Your task to perform on an android device: turn off improve location accuracy Image 0: 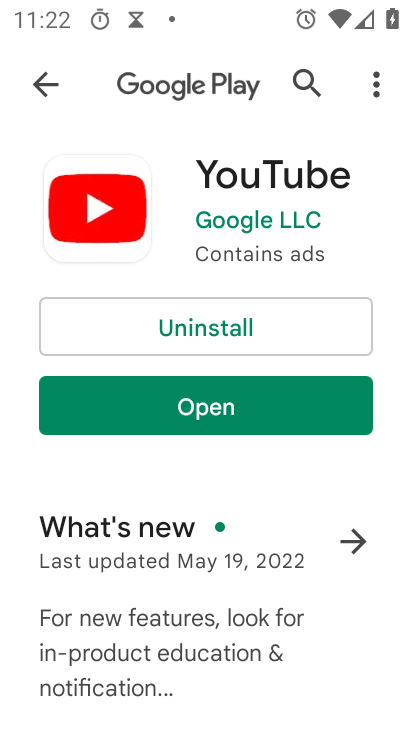
Step 0: press home button
Your task to perform on an android device: turn off improve location accuracy Image 1: 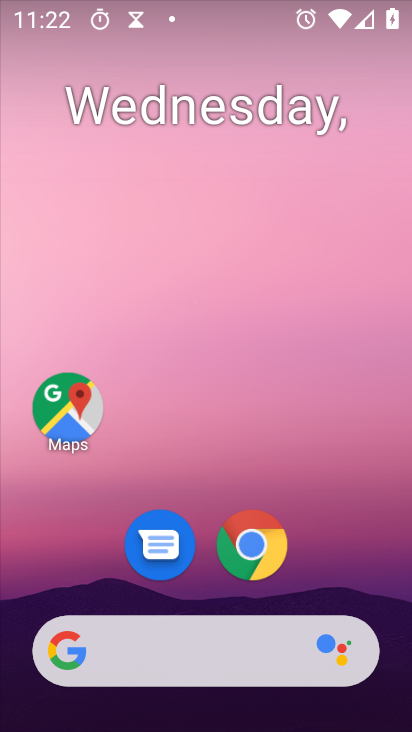
Step 1: drag from (189, 647) to (247, 178)
Your task to perform on an android device: turn off improve location accuracy Image 2: 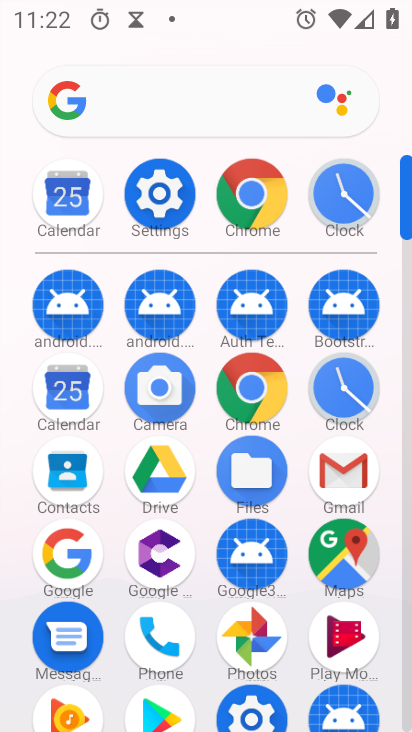
Step 2: click (157, 201)
Your task to perform on an android device: turn off improve location accuracy Image 3: 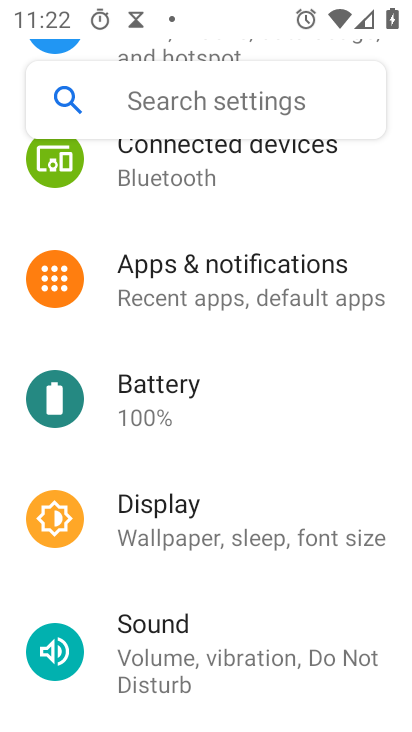
Step 3: drag from (267, 582) to (325, 155)
Your task to perform on an android device: turn off improve location accuracy Image 4: 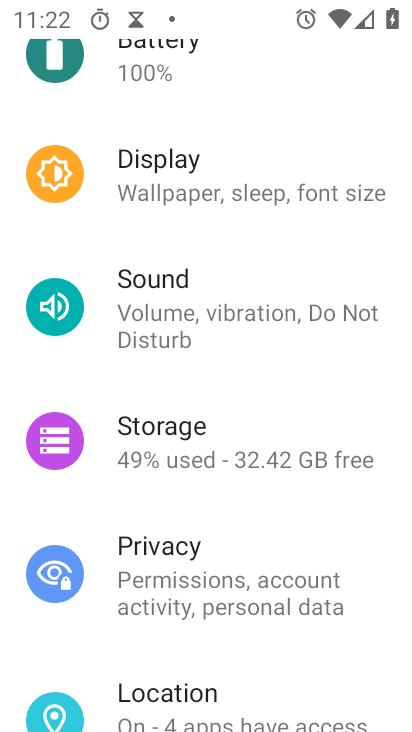
Step 4: drag from (214, 649) to (272, 253)
Your task to perform on an android device: turn off improve location accuracy Image 5: 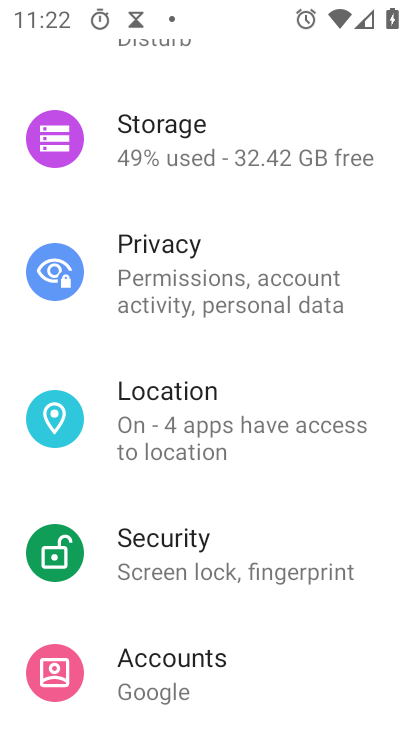
Step 5: click (191, 409)
Your task to perform on an android device: turn off improve location accuracy Image 6: 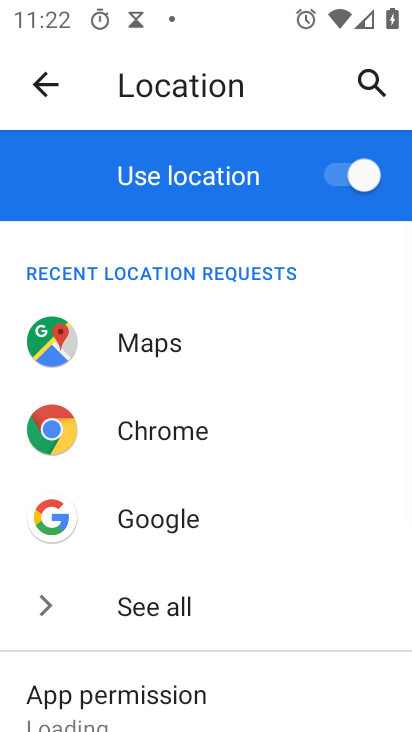
Step 6: drag from (231, 614) to (270, 23)
Your task to perform on an android device: turn off improve location accuracy Image 7: 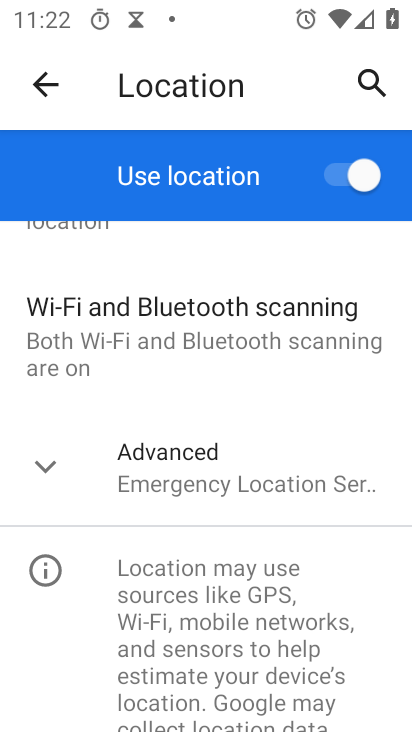
Step 7: click (151, 463)
Your task to perform on an android device: turn off improve location accuracy Image 8: 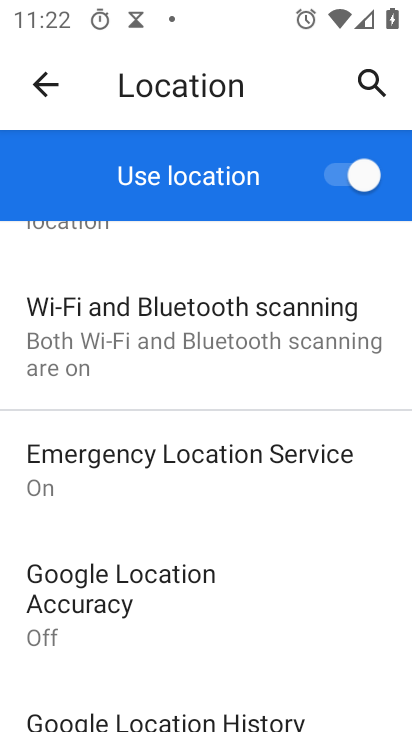
Step 8: click (112, 602)
Your task to perform on an android device: turn off improve location accuracy Image 9: 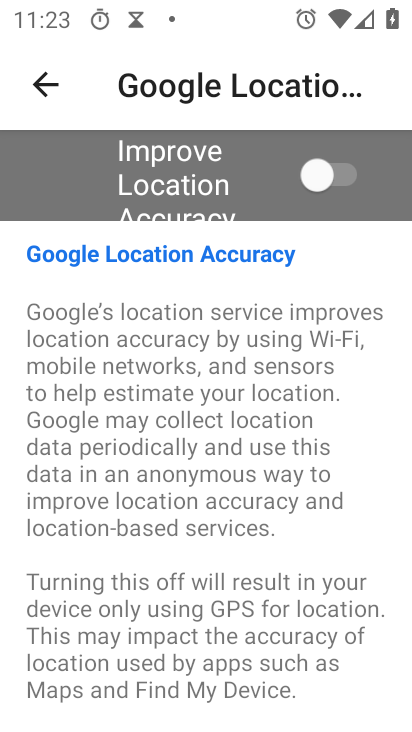
Step 9: task complete